Your task to perform on an android device: change keyboard looks Image 0: 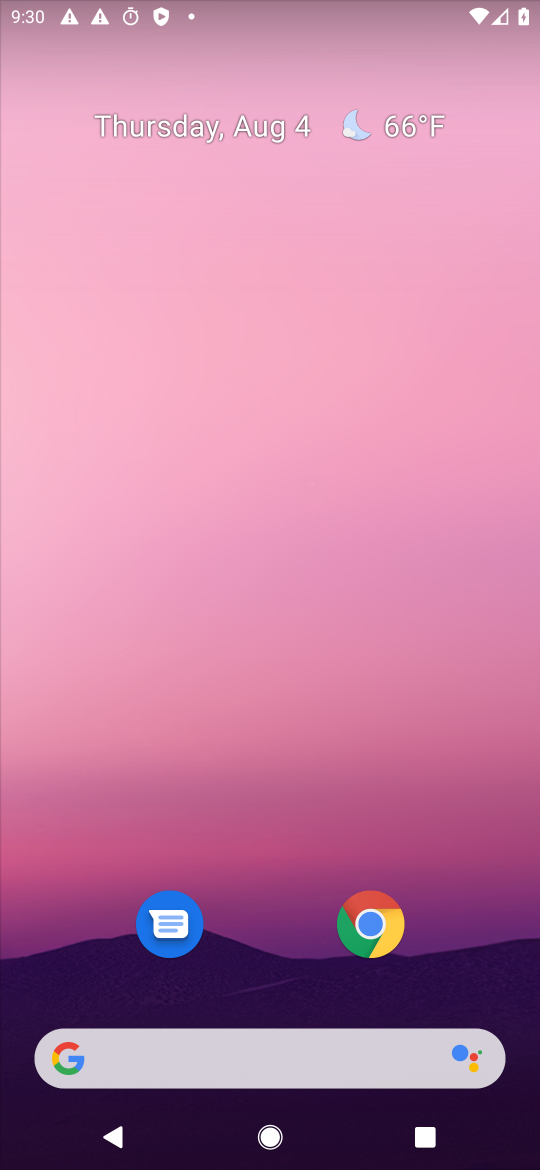
Step 0: drag from (212, 932) to (346, 2)
Your task to perform on an android device: change keyboard looks Image 1: 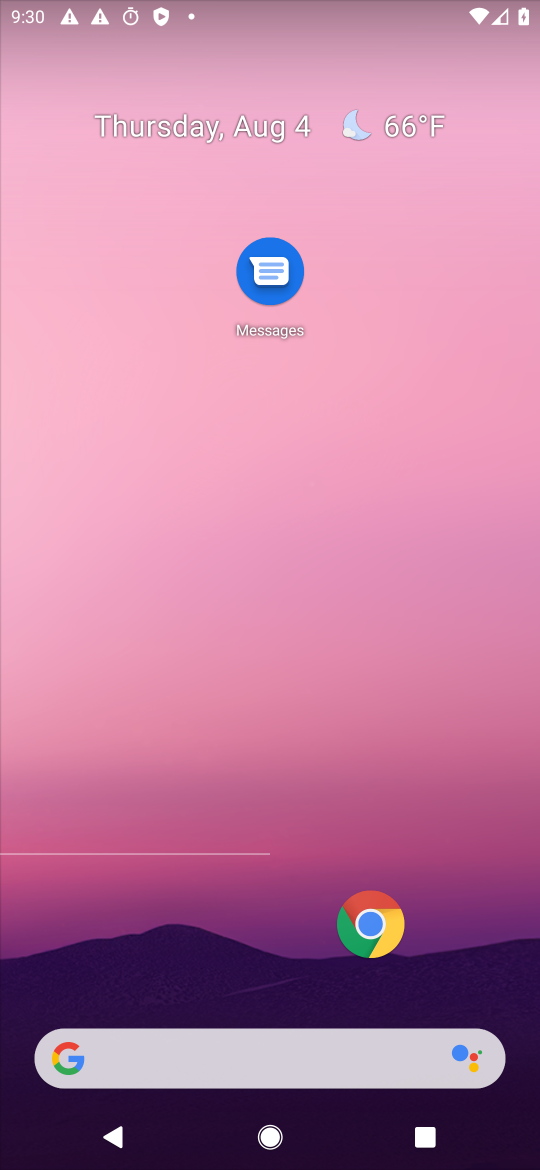
Step 1: drag from (272, 989) to (236, 33)
Your task to perform on an android device: change keyboard looks Image 2: 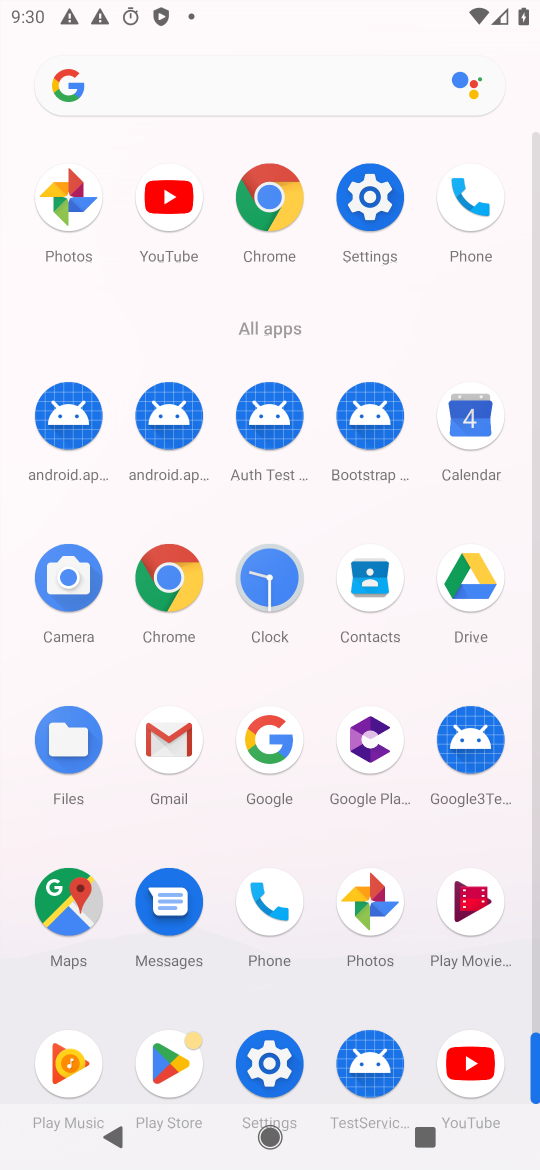
Step 2: click (260, 1052)
Your task to perform on an android device: change keyboard looks Image 3: 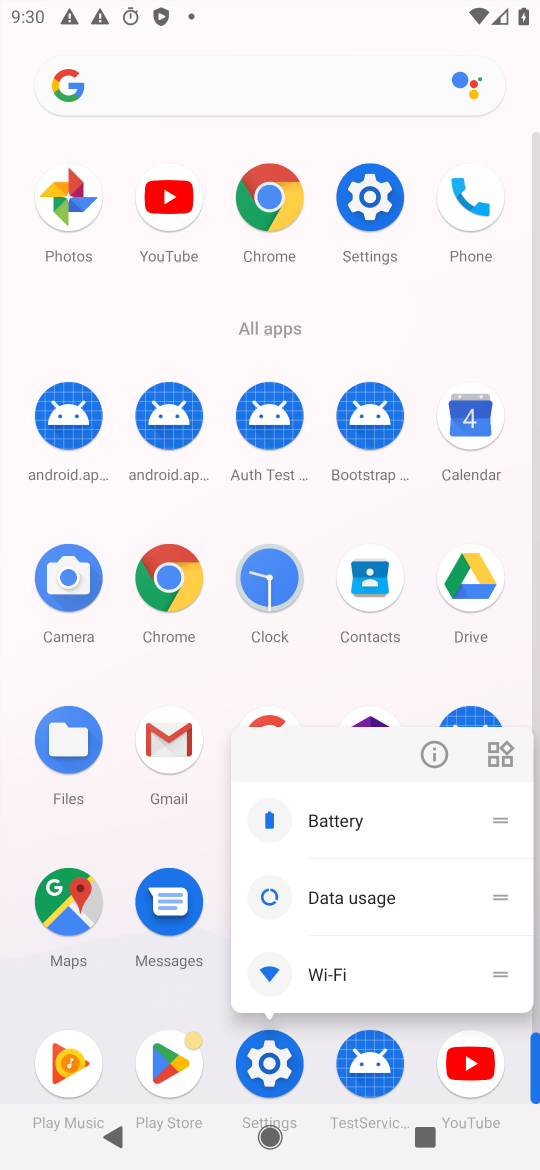
Step 3: click (434, 736)
Your task to perform on an android device: change keyboard looks Image 4: 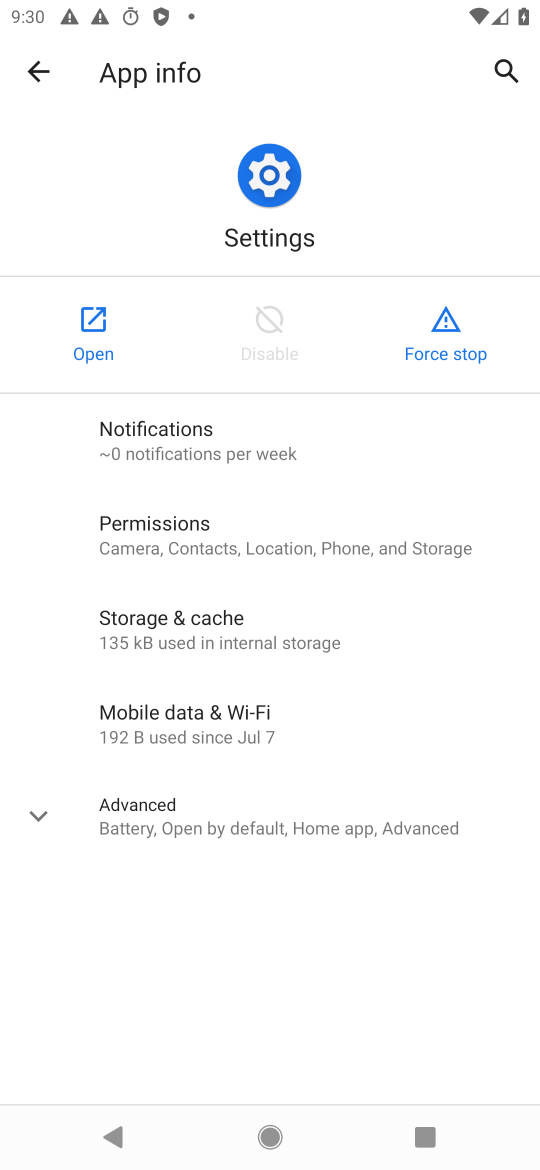
Step 4: click (93, 330)
Your task to perform on an android device: change keyboard looks Image 5: 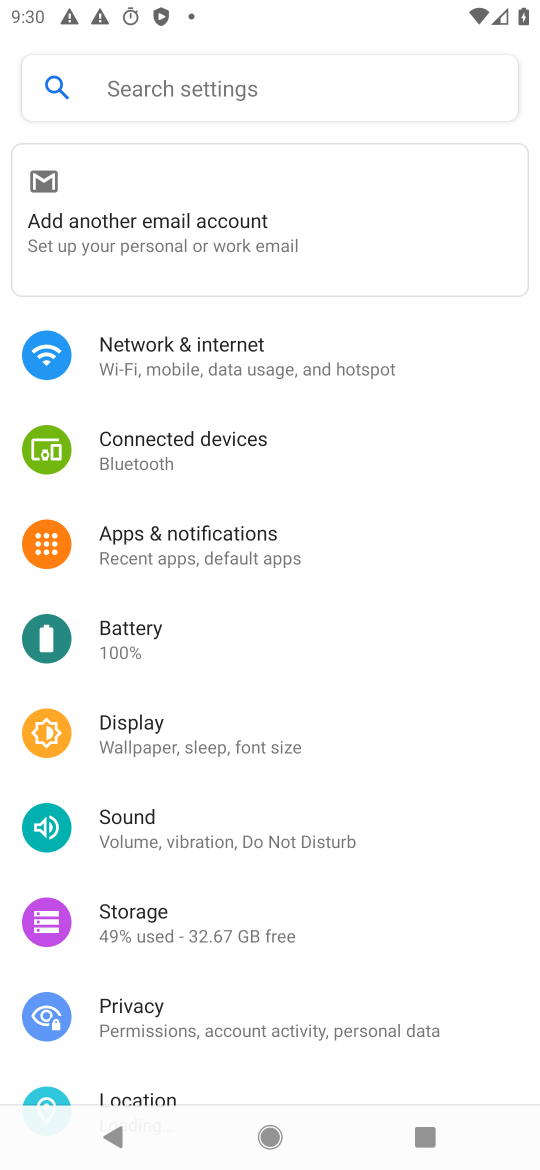
Step 5: drag from (174, 1103) to (339, 202)
Your task to perform on an android device: change keyboard looks Image 6: 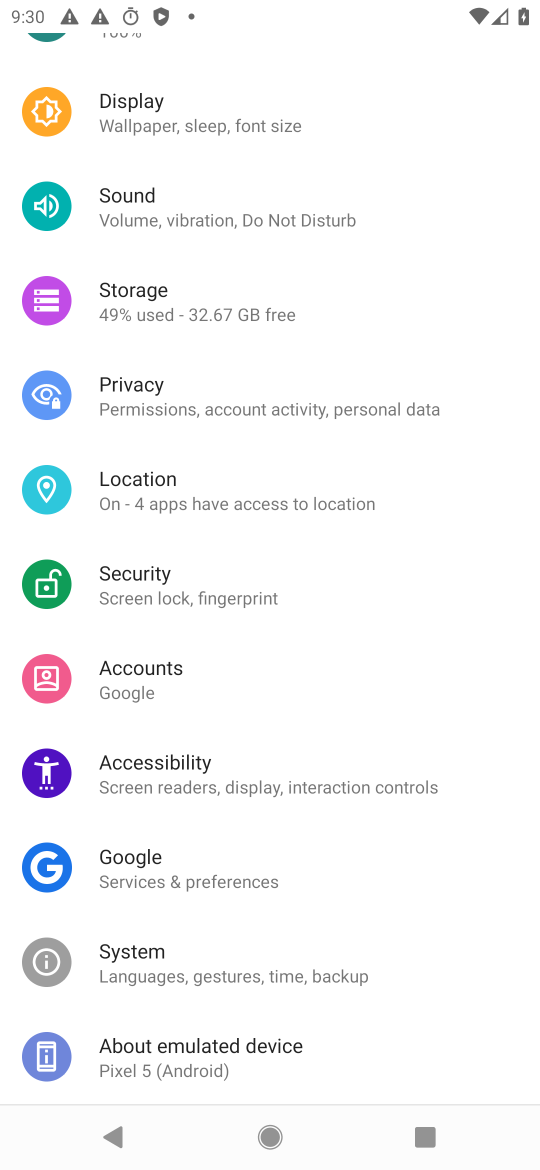
Step 6: drag from (242, 951) to (304, 517)
Your task to perform on an android device: change keyboard looks Image 7: 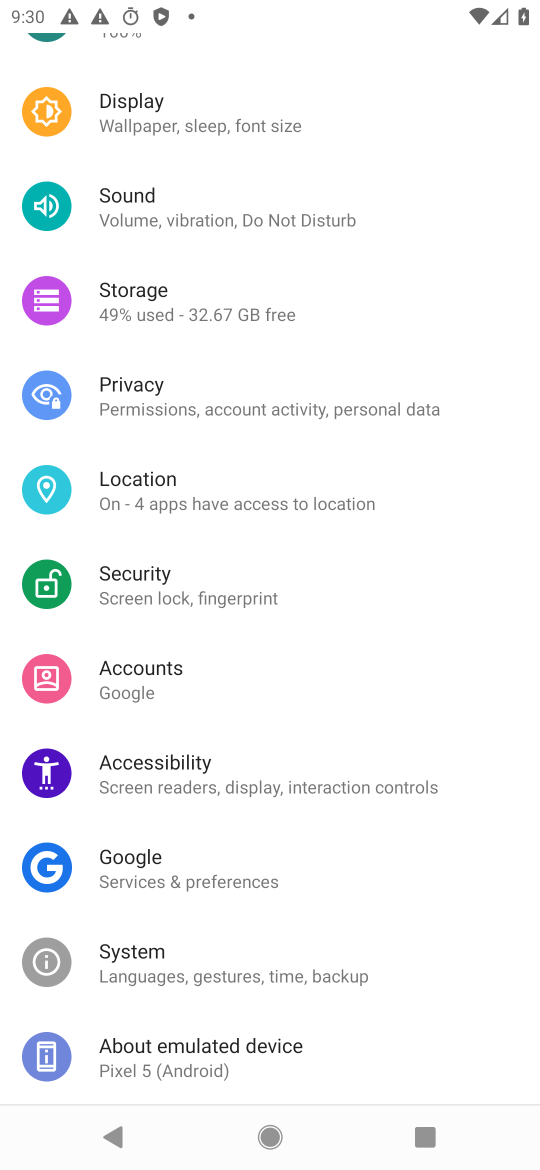
Step 7: click (189, 1075)
Your task to perform on an android device: change keyboard looks Image 8: 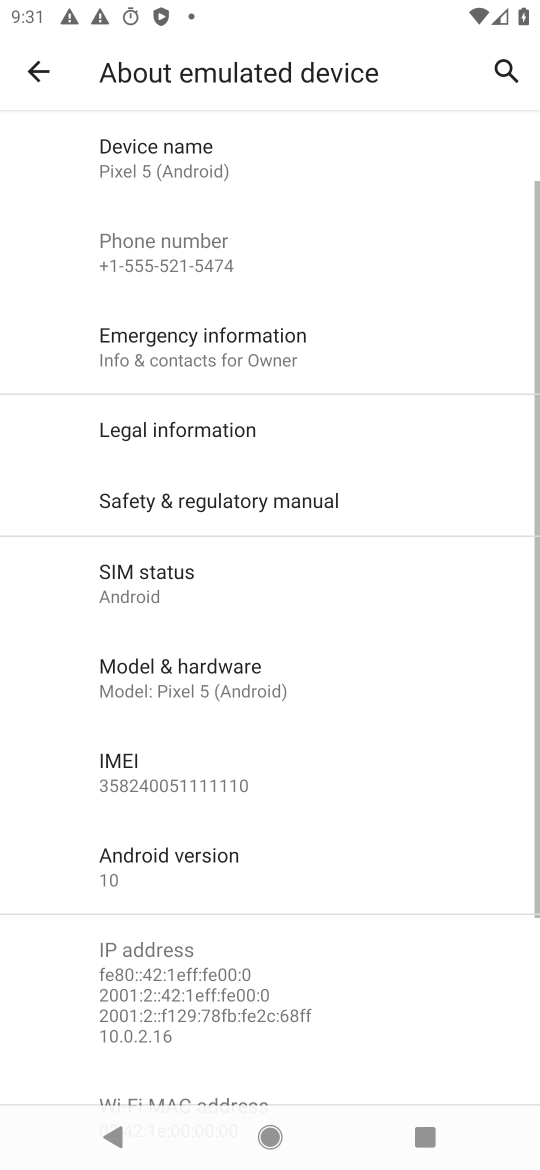
Step 8: click (32, 70)
Your task to perform on an android device: change keyboard looks Image 9: 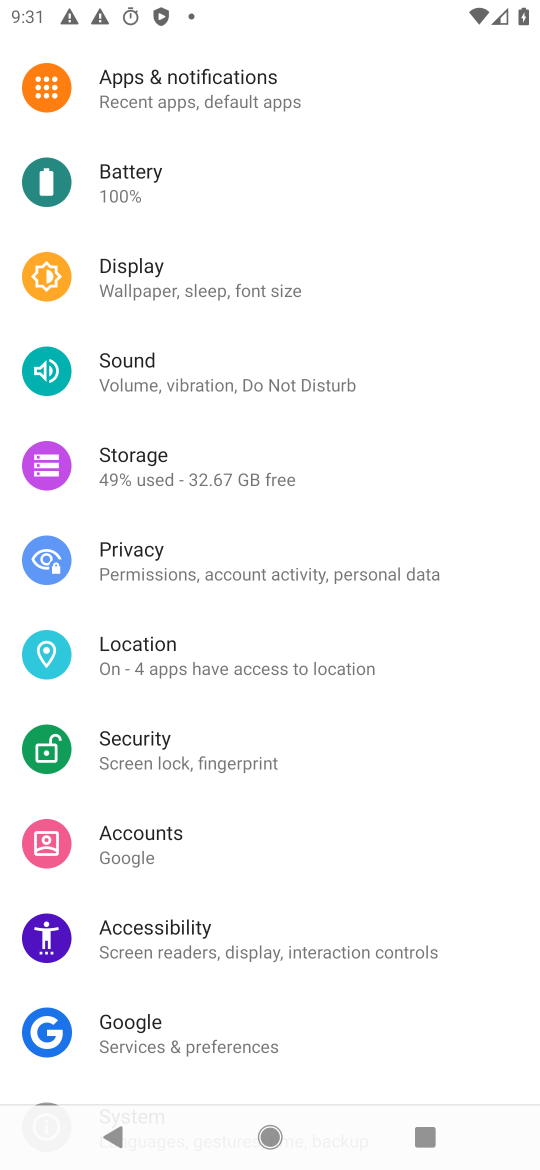
Step 9: drag from (197, 968) to (405, 372)
Your task to perform on an android device: change keyboard looks Image 10: 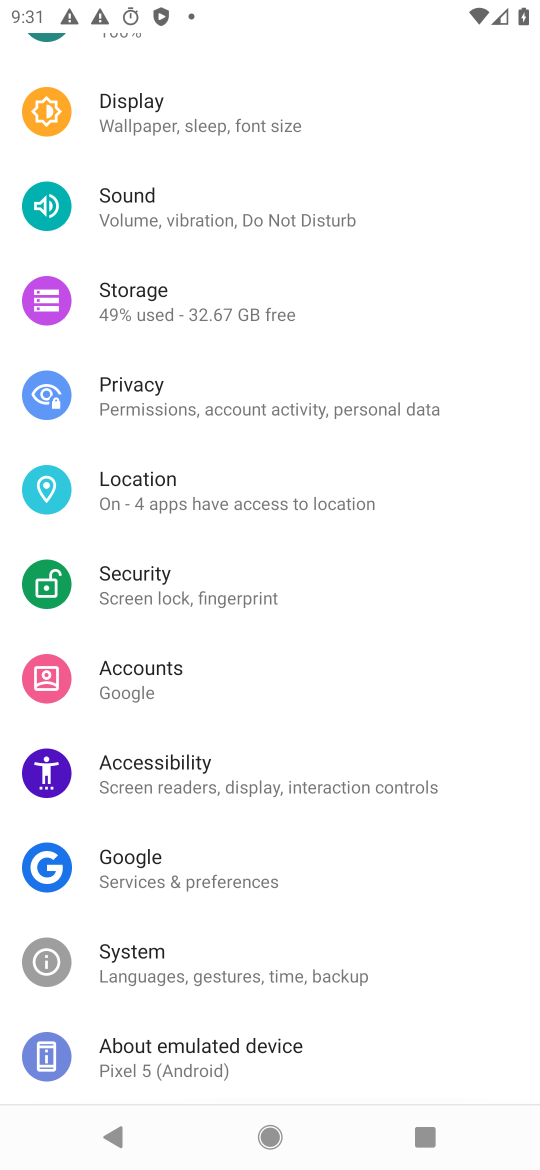
Step 10: click (198, 963)
Your task to perform on an android device: change keyboard looks Image 11: 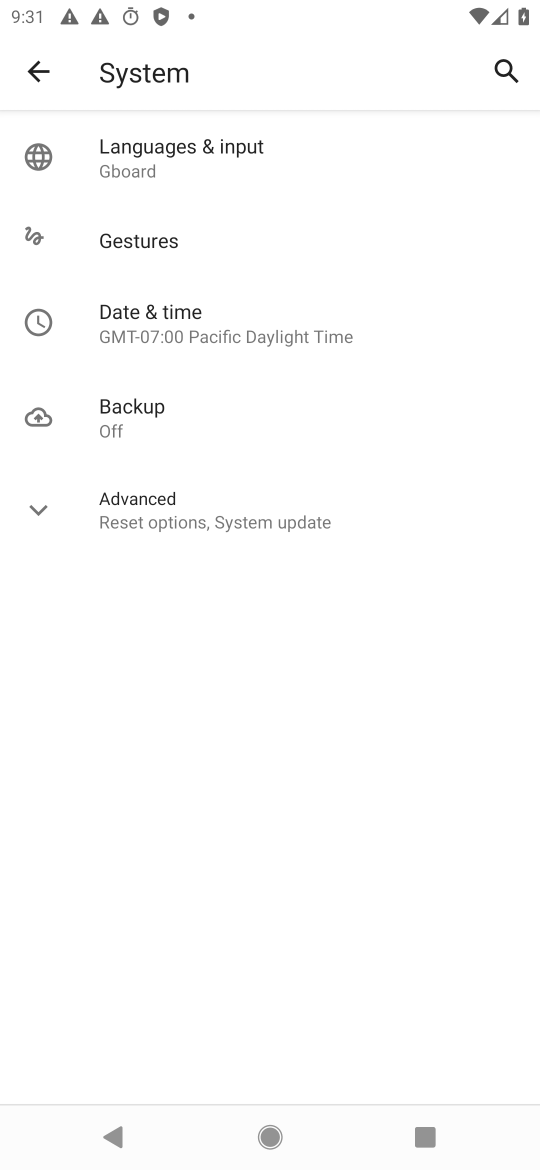
Step 11: click (233, 174)
Your task to perform on an android device: change keyboard looks Image 12: 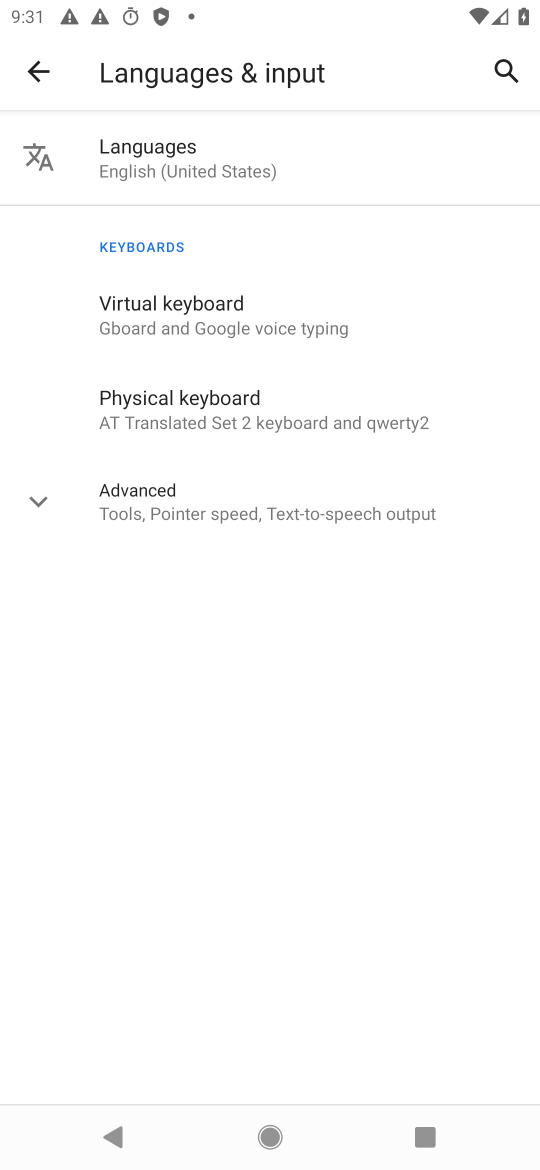
Step 12: click (269, 313)
Your task to perform on an android device: change keyboard looks Image 13: 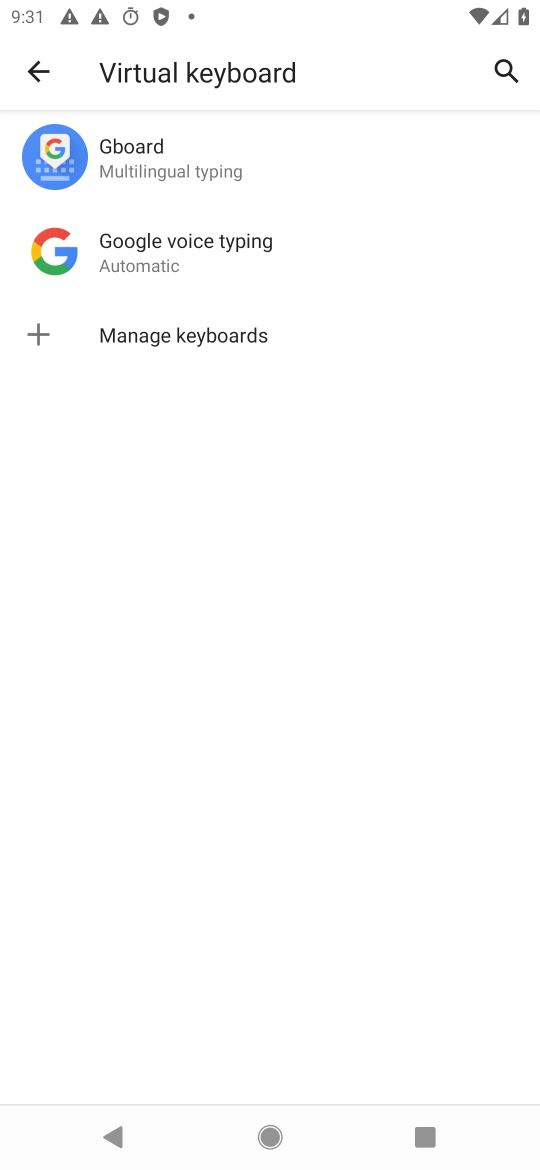
Step 13: click (193, 139)
Your task to perform on an android device: change keyboard looks Image 14: 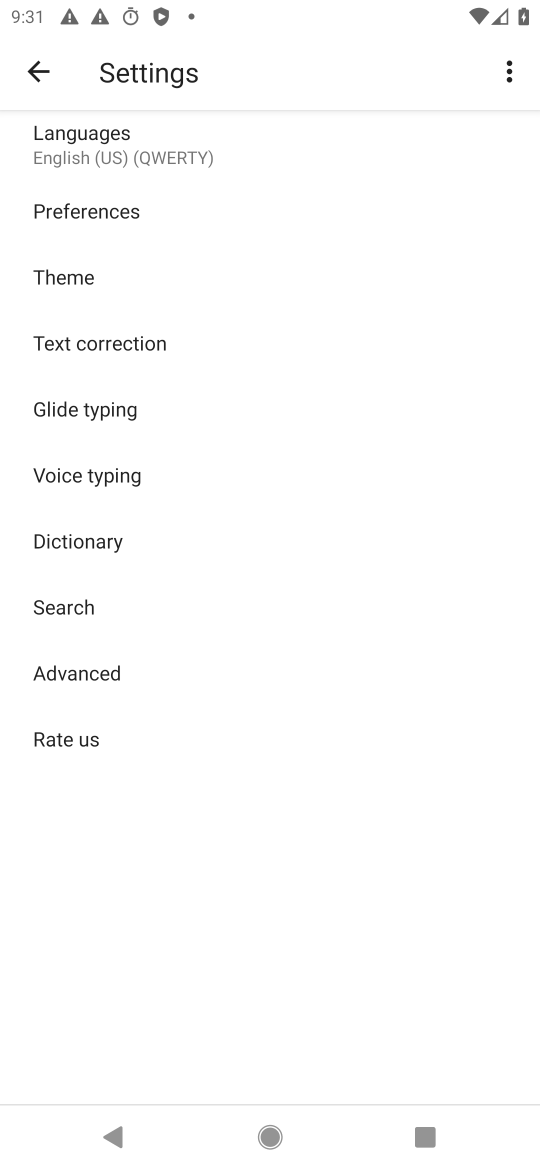
Step 14: click (101, 273)
Your task to perform on an android device: change keyboard looks Image 15: 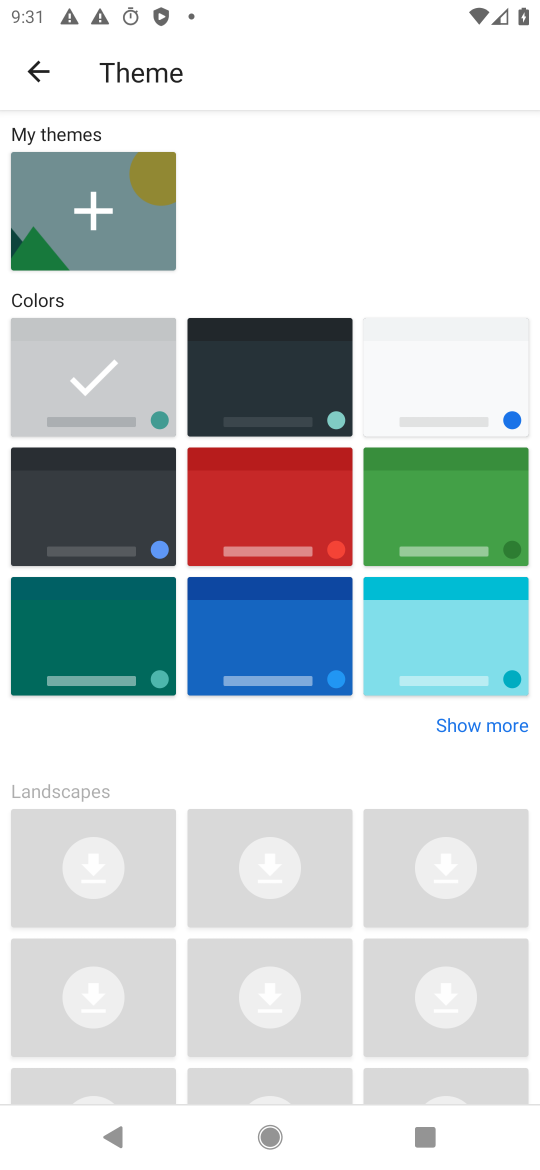
Step 15: drag from (333, 855) to (375, 495)
Your task to perform on an android device: change keyboard looks Image 16: 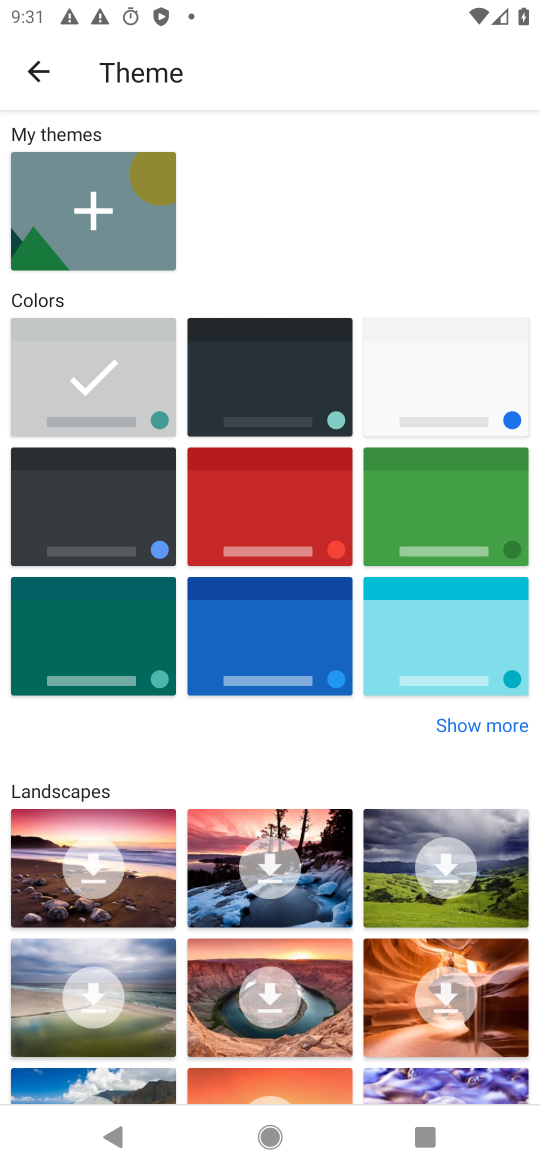
Step 16: click (267, 376)
Your task to perform on an android device: change keyboard looks Image 17: 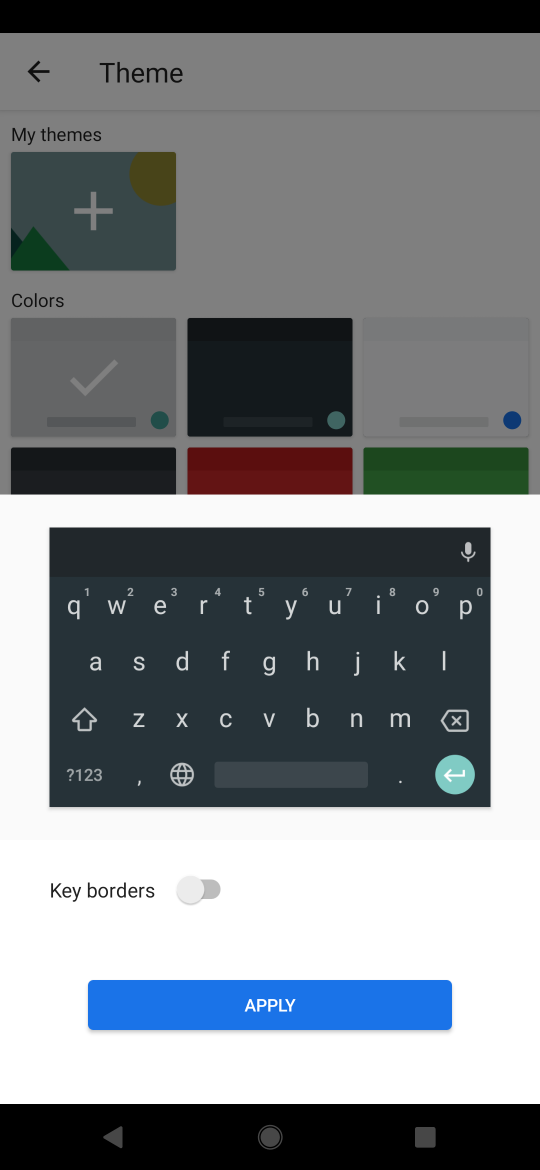
Step 17: click (293, 994)
Your task to perform on an android device: change keyboard looks Image 18: 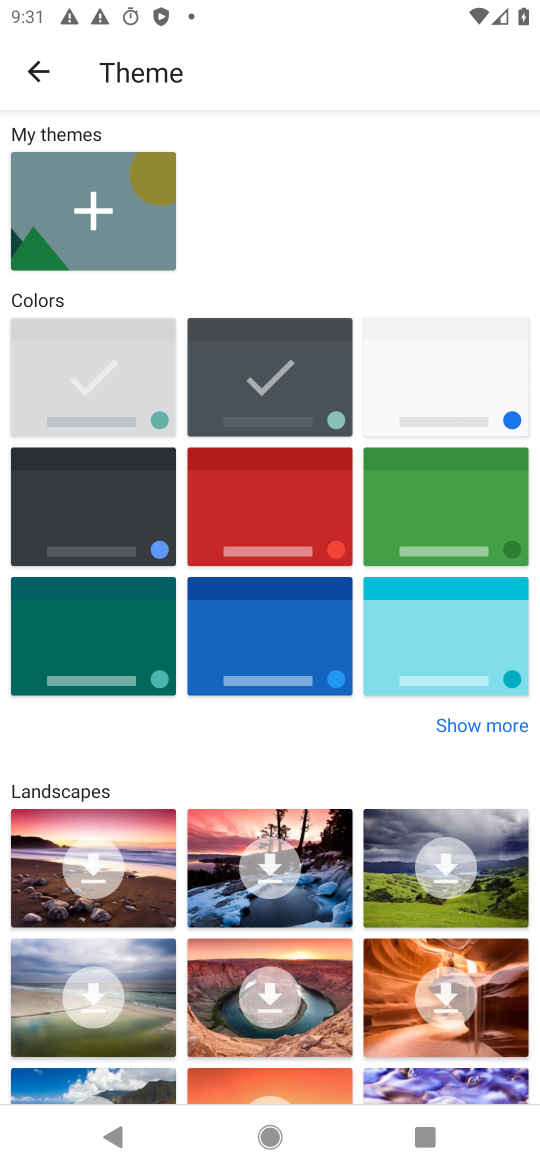
Step 18: task complete